Your task to perform on an android device: clear all cookies in the chrome app Image 0: 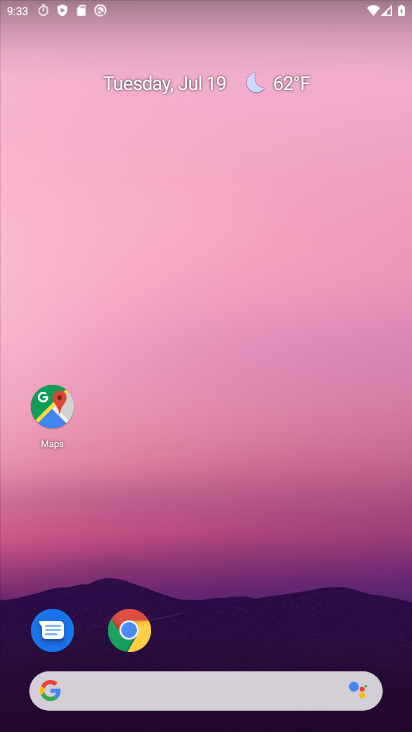
Step 0: click (121, 637)
Your task to perform on an android device: clear all cookies in the chrome app Image 1: 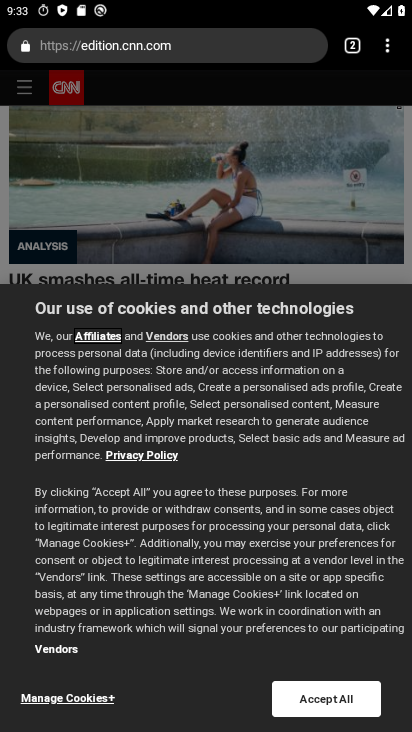
Step 1: drag from (268, 139) to (266, 574)
Your task to perform on an android device: clear all cookies in the chrome app Image 2: 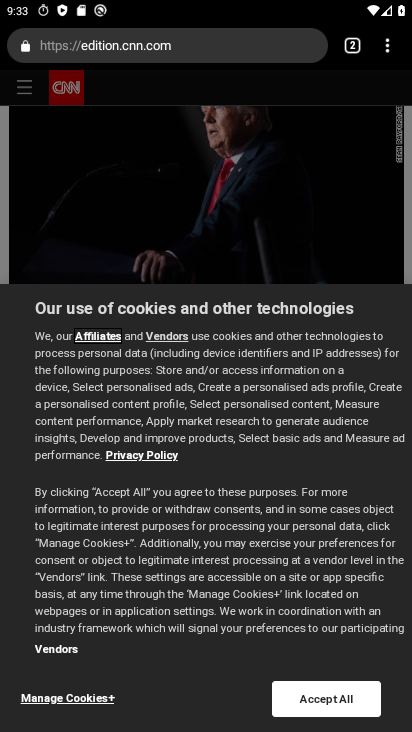
Step 2: click (390, 44)
Your task to perform on an android device: clear all cookies in the chrome app Image 3: 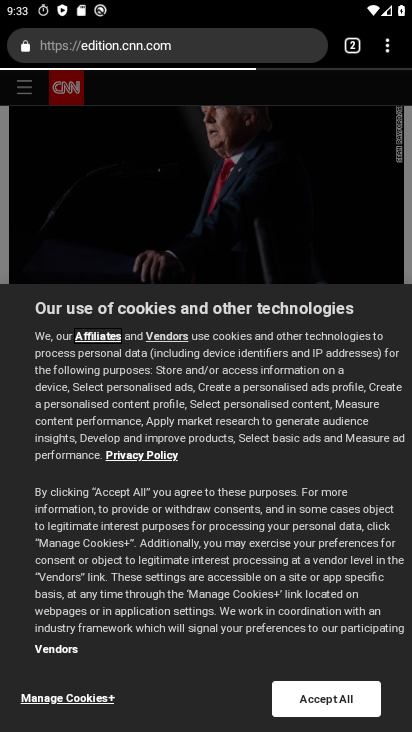
Step 3: click (390, 44)
Your task to perform on an android device: clear all cookies in the chrome app Image 4: 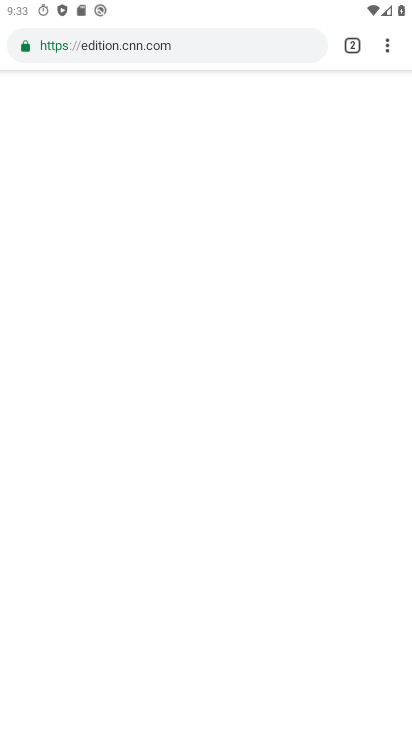
Step 4: click (385, 49)
Your task to perform on an android device: clear all cookies in the chrome app Image 5: 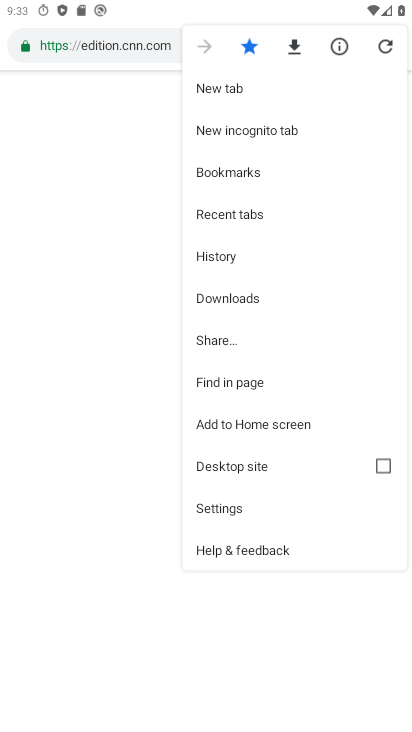
Step 5: click (224, 257)
Your task to perform on an android device: clear all cookies in the chrome app Image 6: 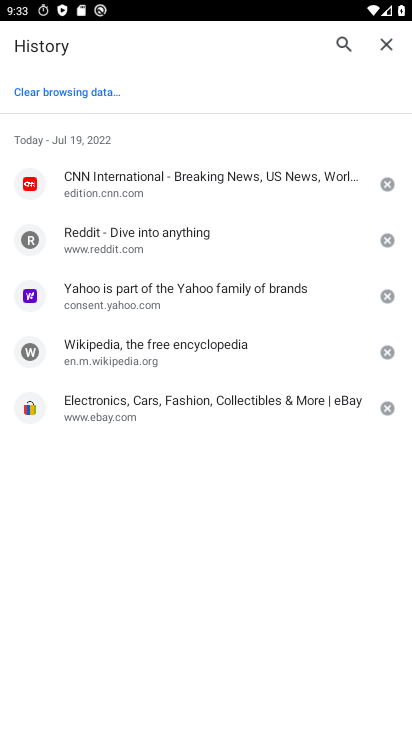
Step 6: click (59, 98)
Your task to perform on an android device: clear all cookies in the chrome app Image 7: 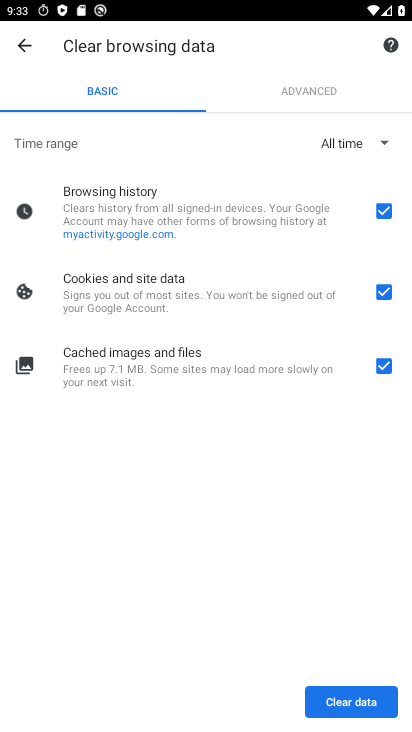
Step 7: click (344, 706)
Your task to perform on an android device: clear all cookies in the chrome app Image 8: 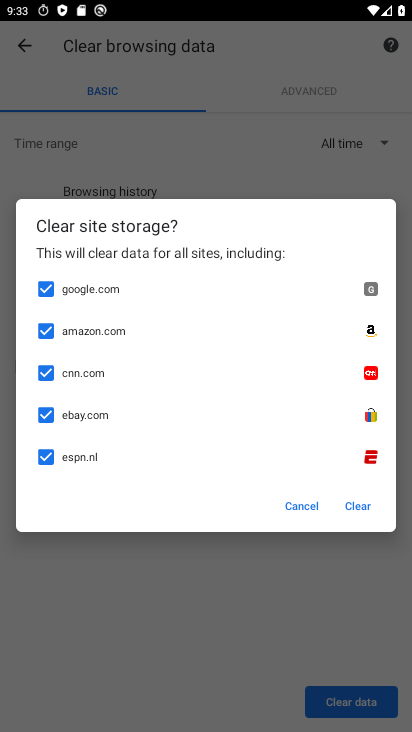
Step 8: click (351, 500)
Your task to perform on an android device: clear all cookies in the chrome app Image 9: 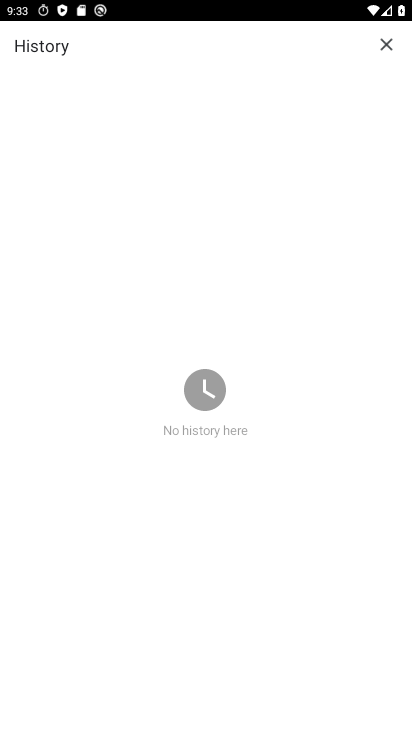
Step 9: task complete